Your task to perform on an android device: Open location settings Image 0: 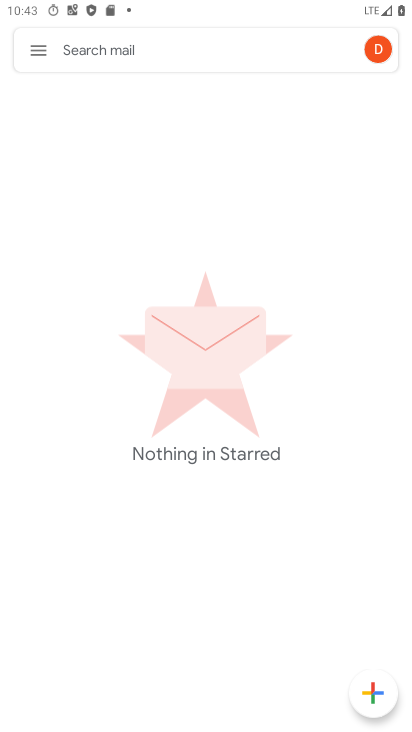
Step 0: press home button
Your task to perform on an android device: Open location settings Image 1: 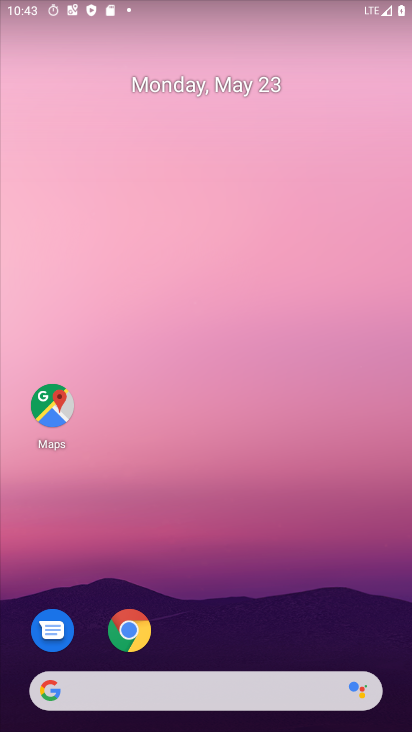
Step 1: drag from (234, 648) to (275, 4)
Your task to perform on an android device: Open location settings Image 2: 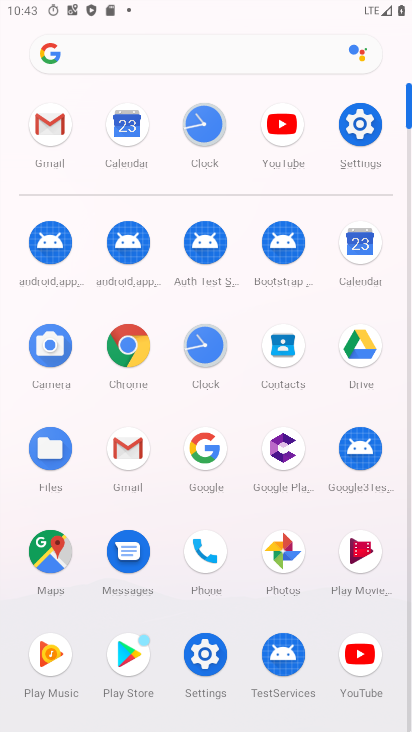
Step 2: click (359, 124)
Your task to perform on an android device: Open location settings Image 3: 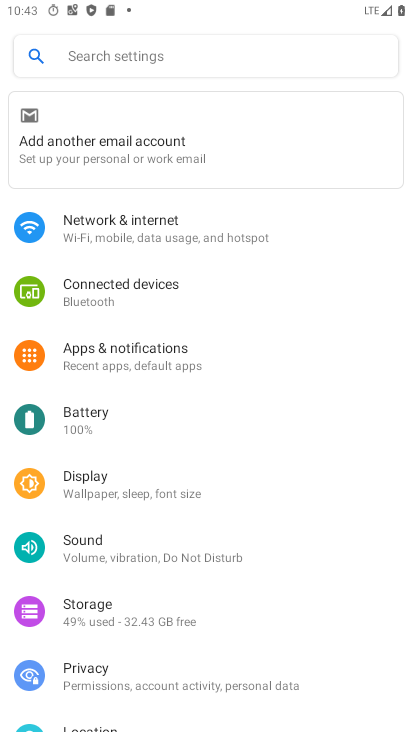
Step 3: drag from (363, 622) to (353, 398)
Your task to perform on an android device: Open location settings Image 4: 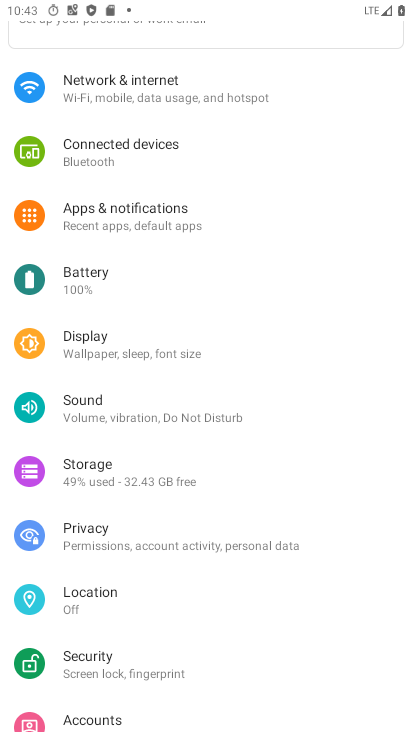
Step 4: click (77, 595)
Your task to perform on an android device: Open location settings Image 5: 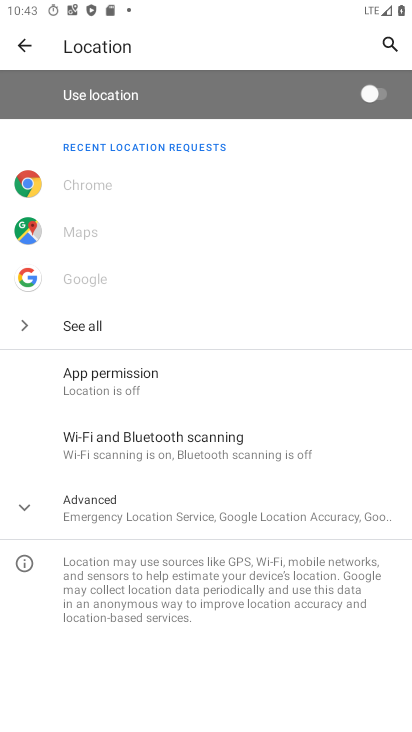
Step 5: task complete